Your task to perform on an android device: turn on notifications settings in the gmail app Image 0: 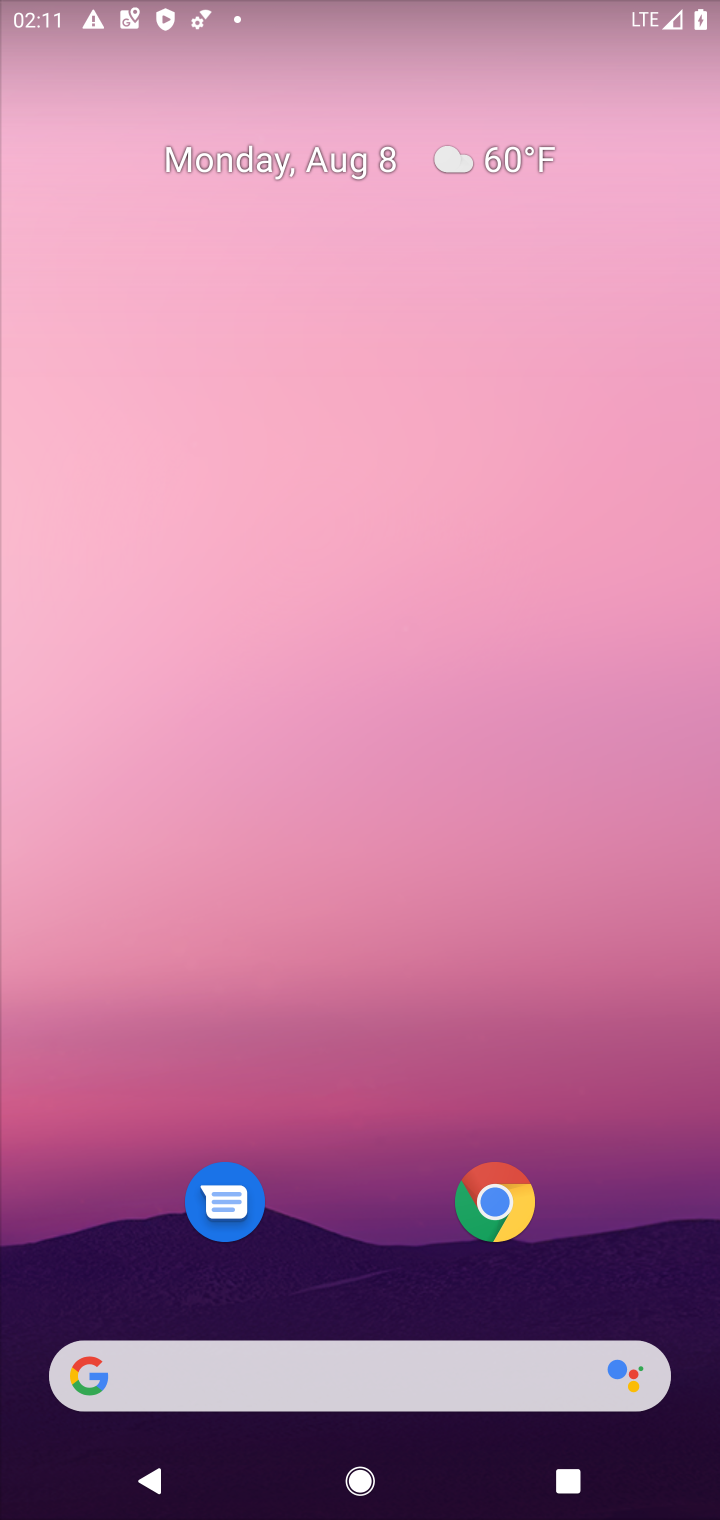
Step 0: drag from (360, 152) to (378, 22)
Your task to perform on an android device: turn on notifications settings in the gmail app Image 1: 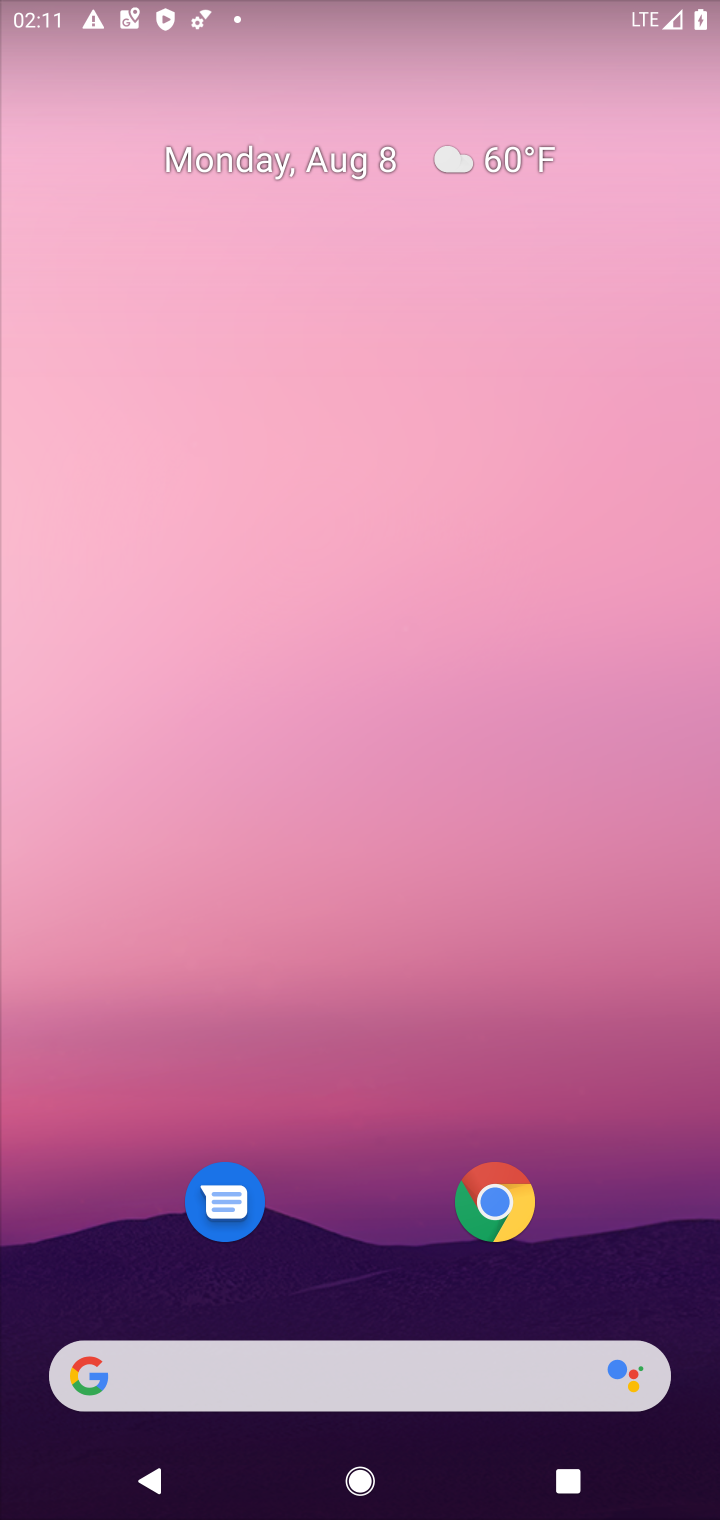
Step 1: click (438, 190)
Your task to perform on an android device: turn on notifications settings in the gmail app Image 2: 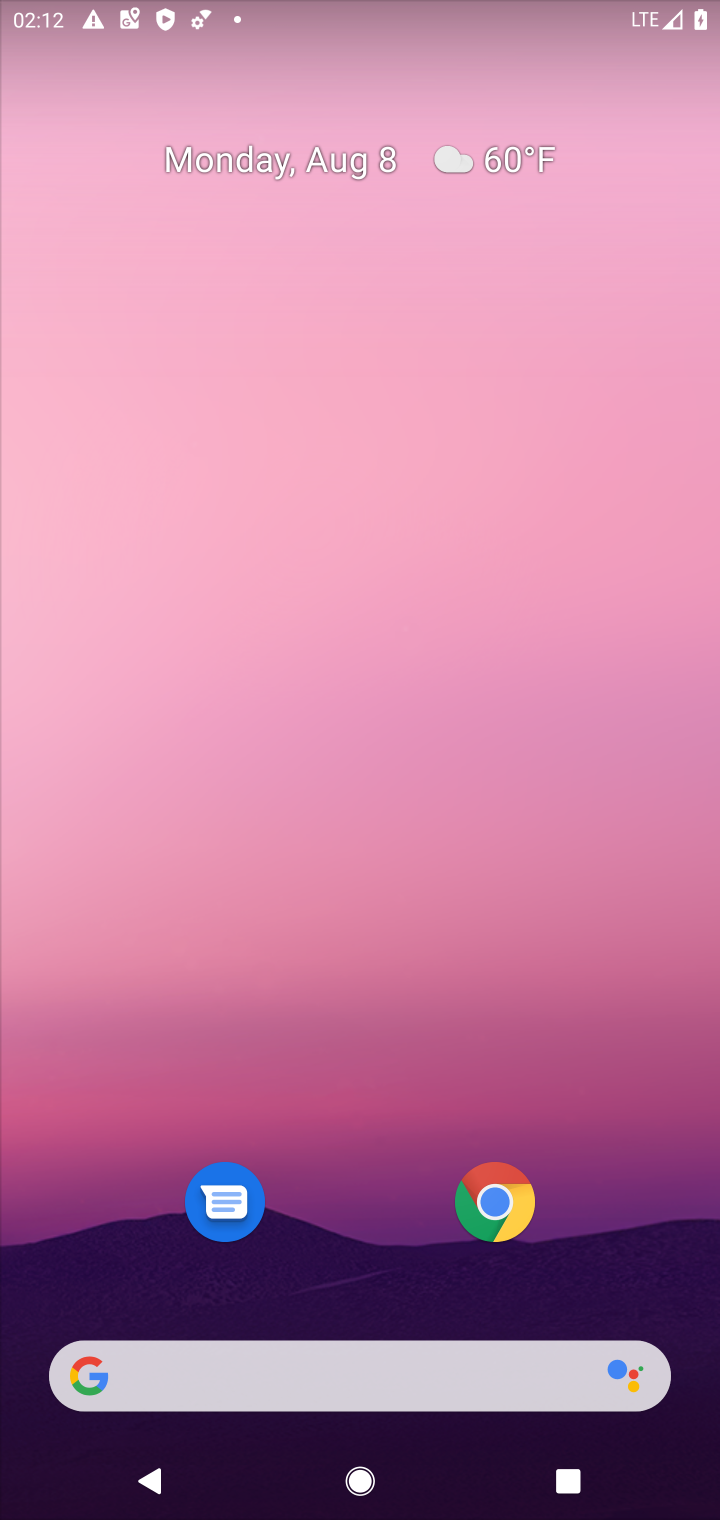
Step 2: drag from (358, 1171) to (332, 504)
Your task to perform on an android device: turn on notifications settings in the gmail app Image 3: 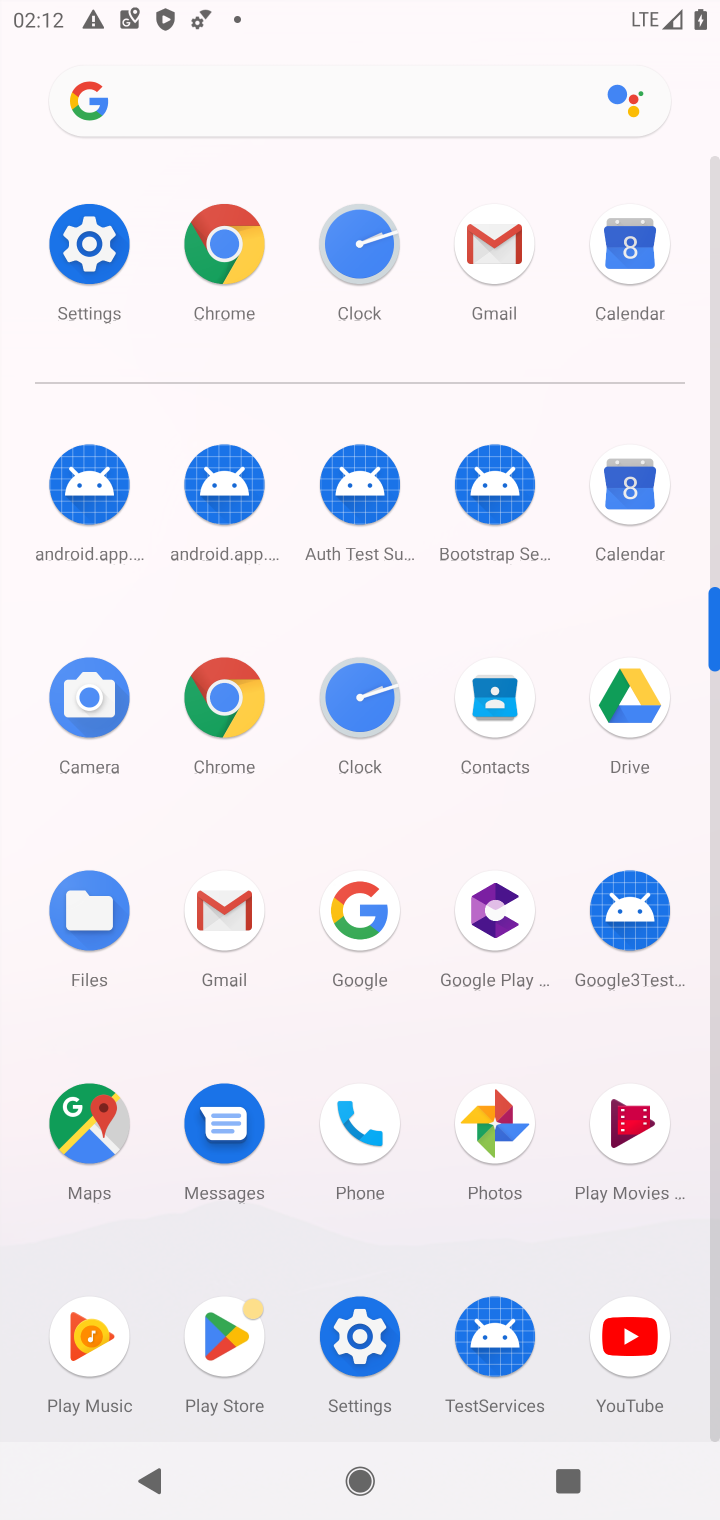
Step 3: click (490, 272)
Your task to perform on an android device: turn on notifications settings in the gmail app Image 4: 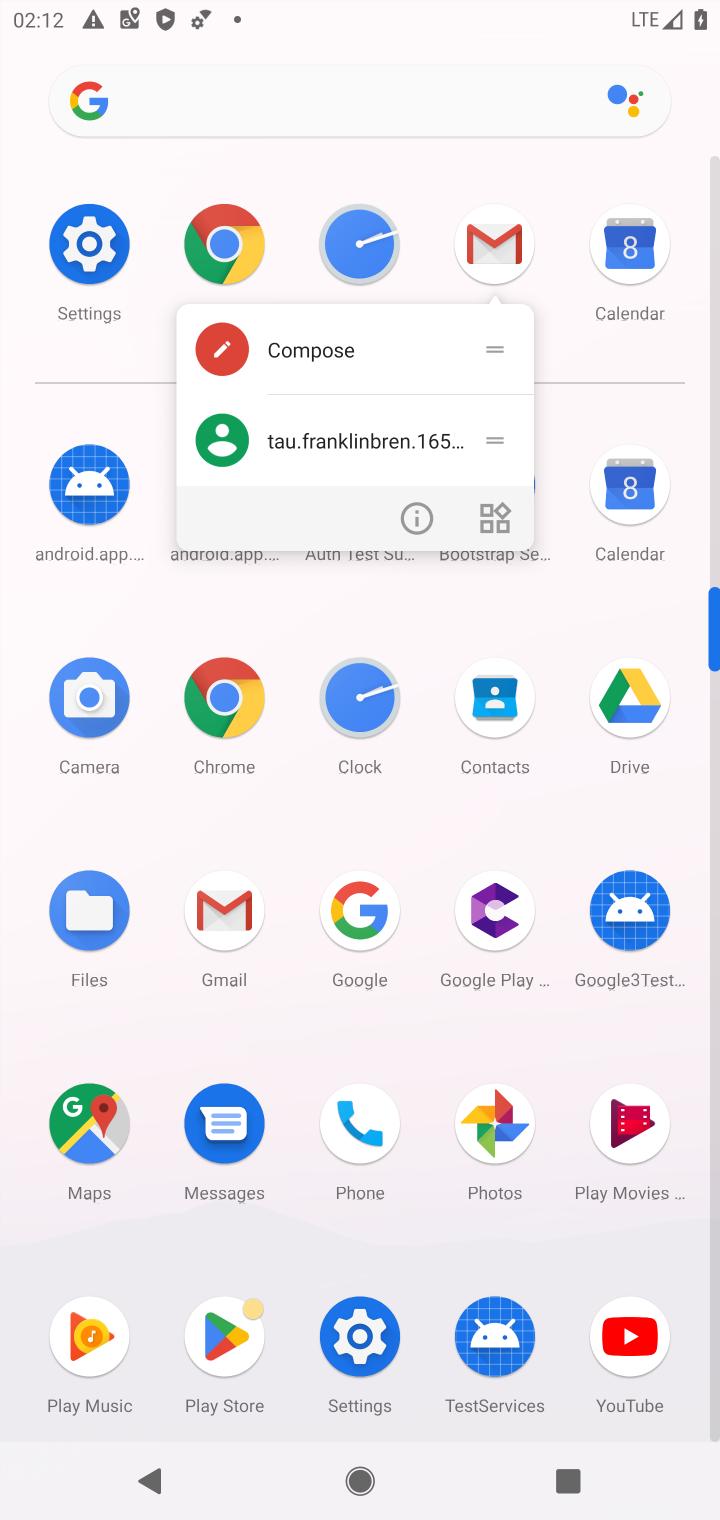
Step 4: click (487, 253)
Your task to perform on an android device: turn on notifications settings in the gmail app Image 5: 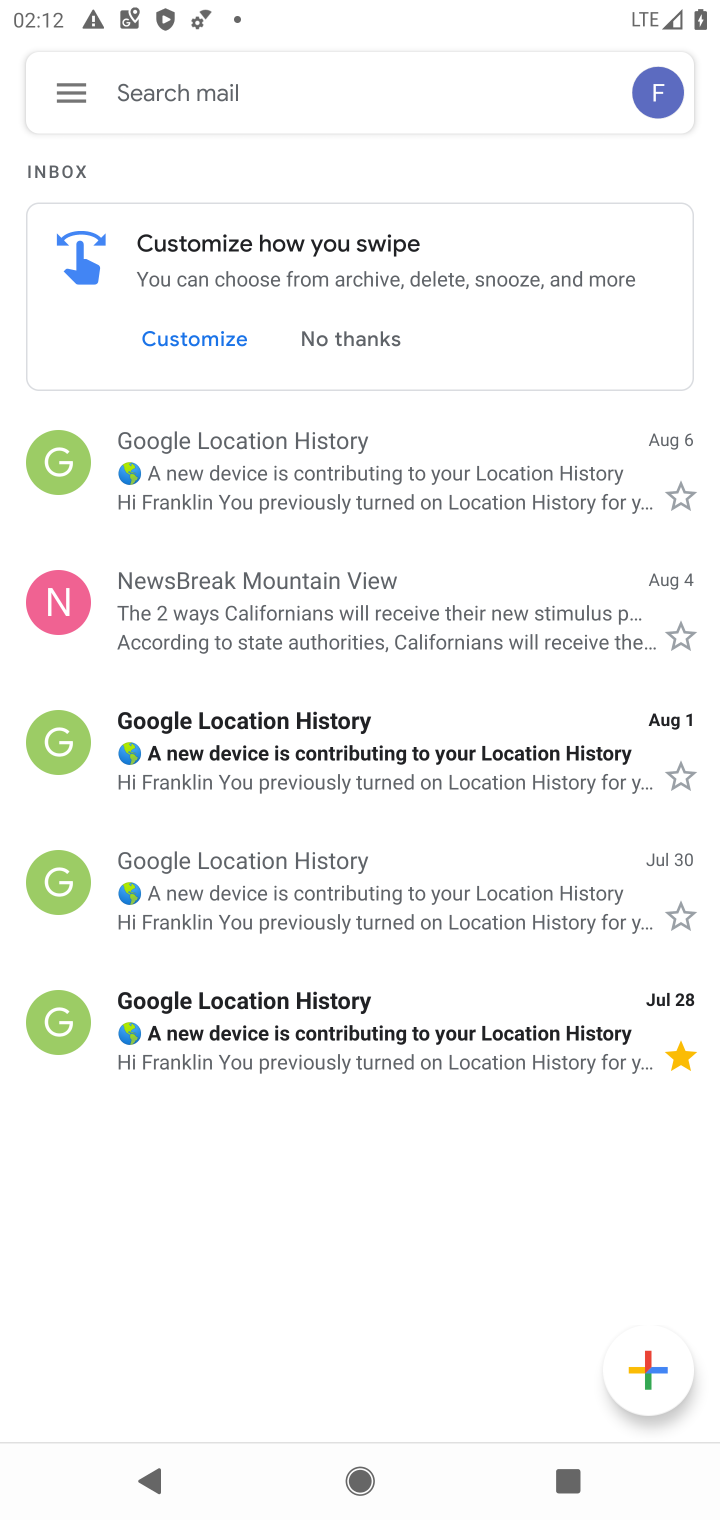
Step 5: click (73, 91)
Your task to perform on an android device: turn on notifications settings in the gmail app Image 6: 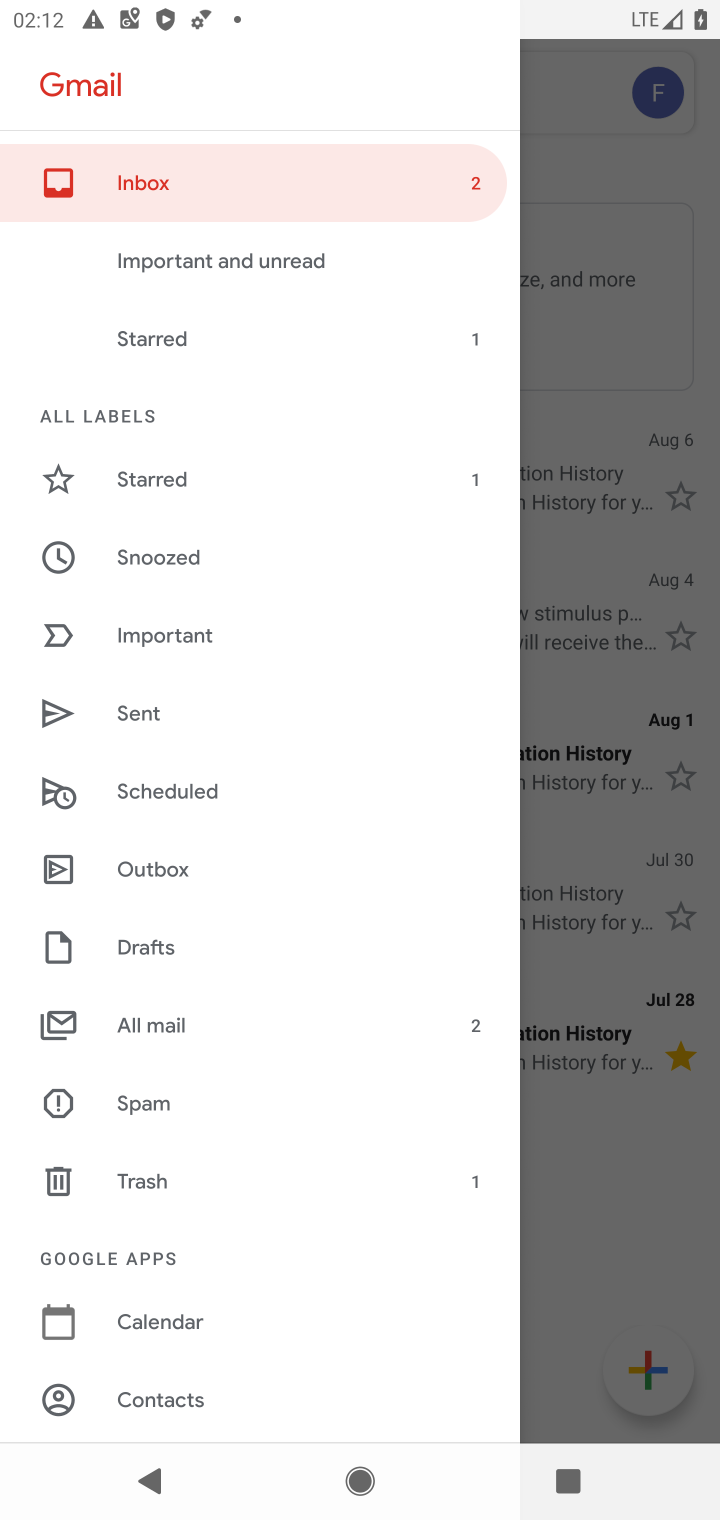
Step 6: drag from (224, 1314) to (258, 748)
Your task to perform on an android device: turn on notifications settings in the gmail app Image 7: 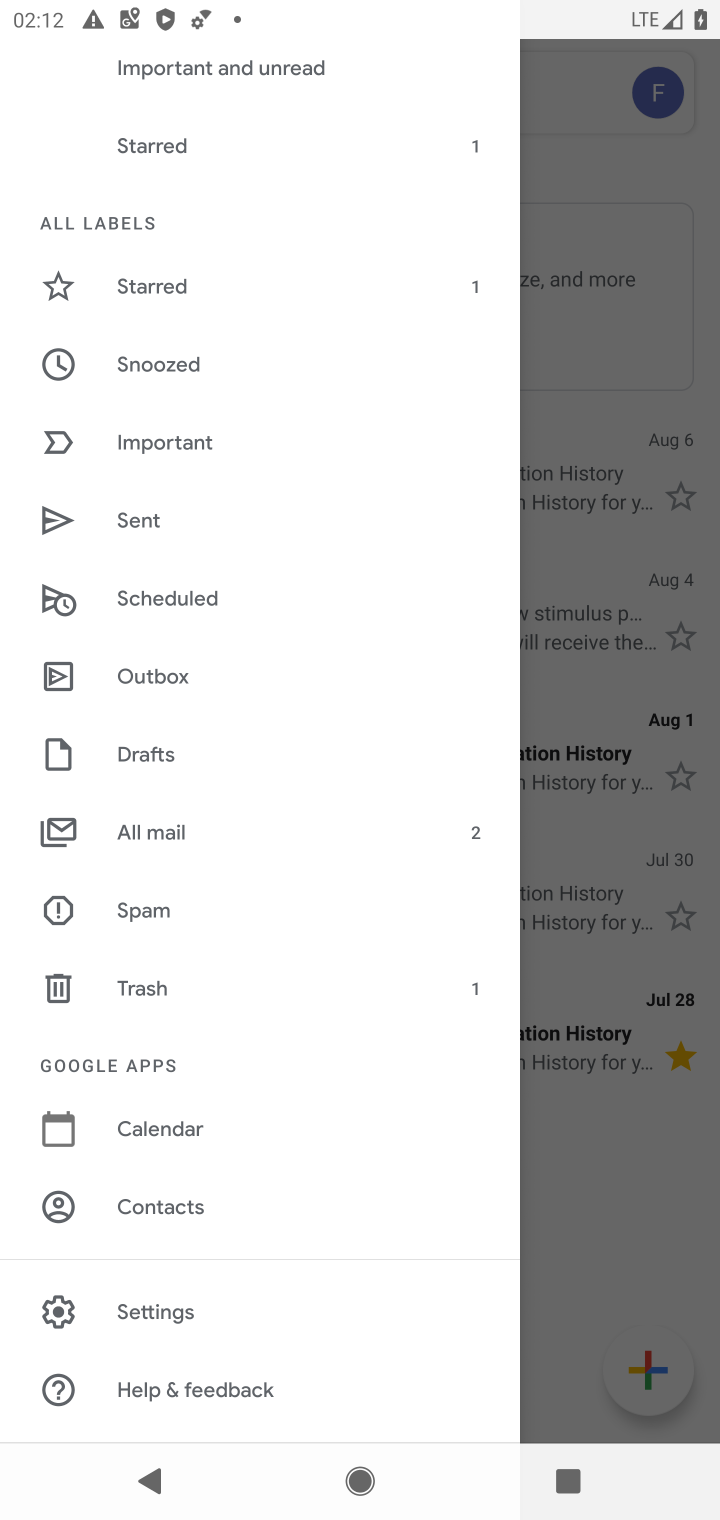
Step 7: click (128, 1305)
Your task to perform on an android device: turn on notifications settings in the gmail app Image 8: 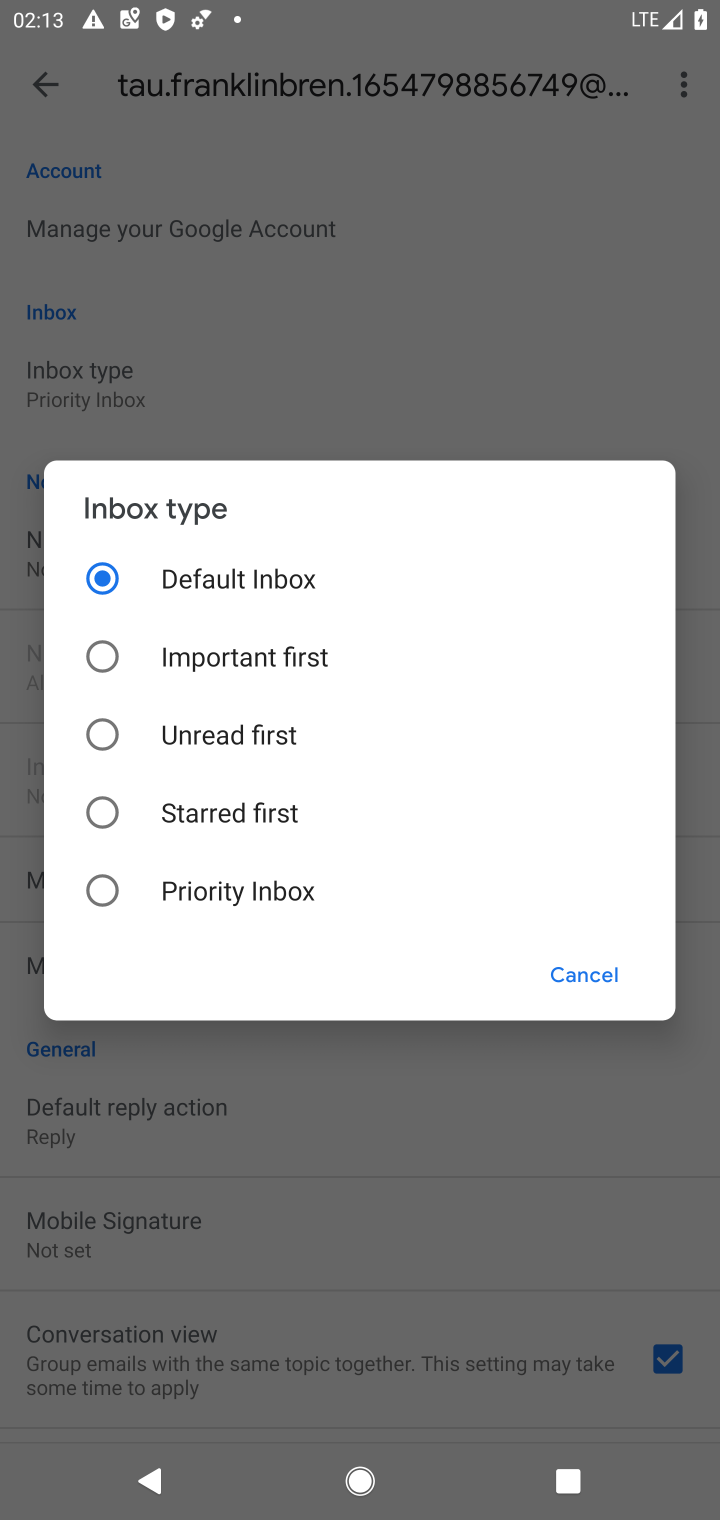
Step 8: press back button
Your task to perform on an android device: turn on notifications settings in the gmail app Image 9: 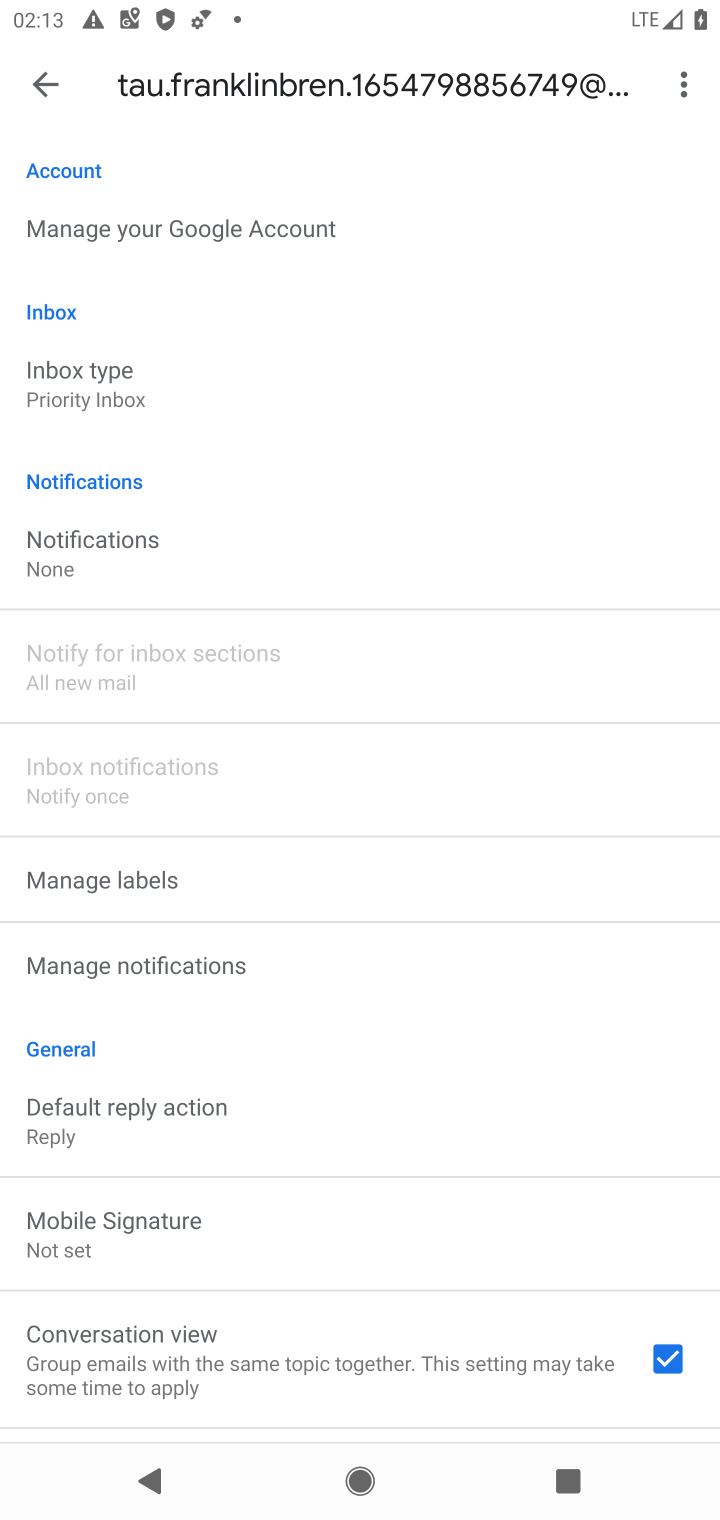
Step 9: click (71, 578)
Your task to perform on an android device: turn on notifications settings in the gmail app Image 10: 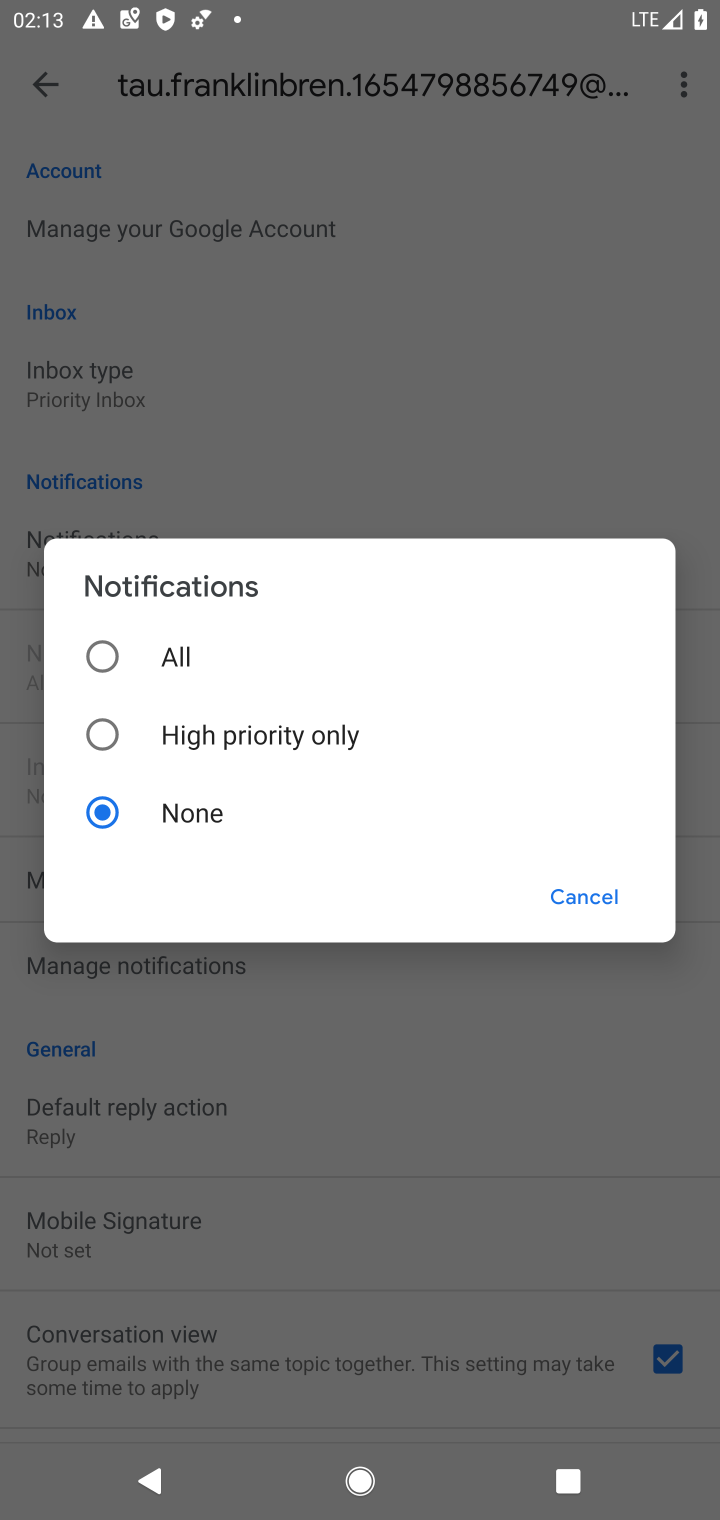
Step 10: click (110, 652)
Your task to perform on an android device: turn on notifications settings in the gmail app Image 11: 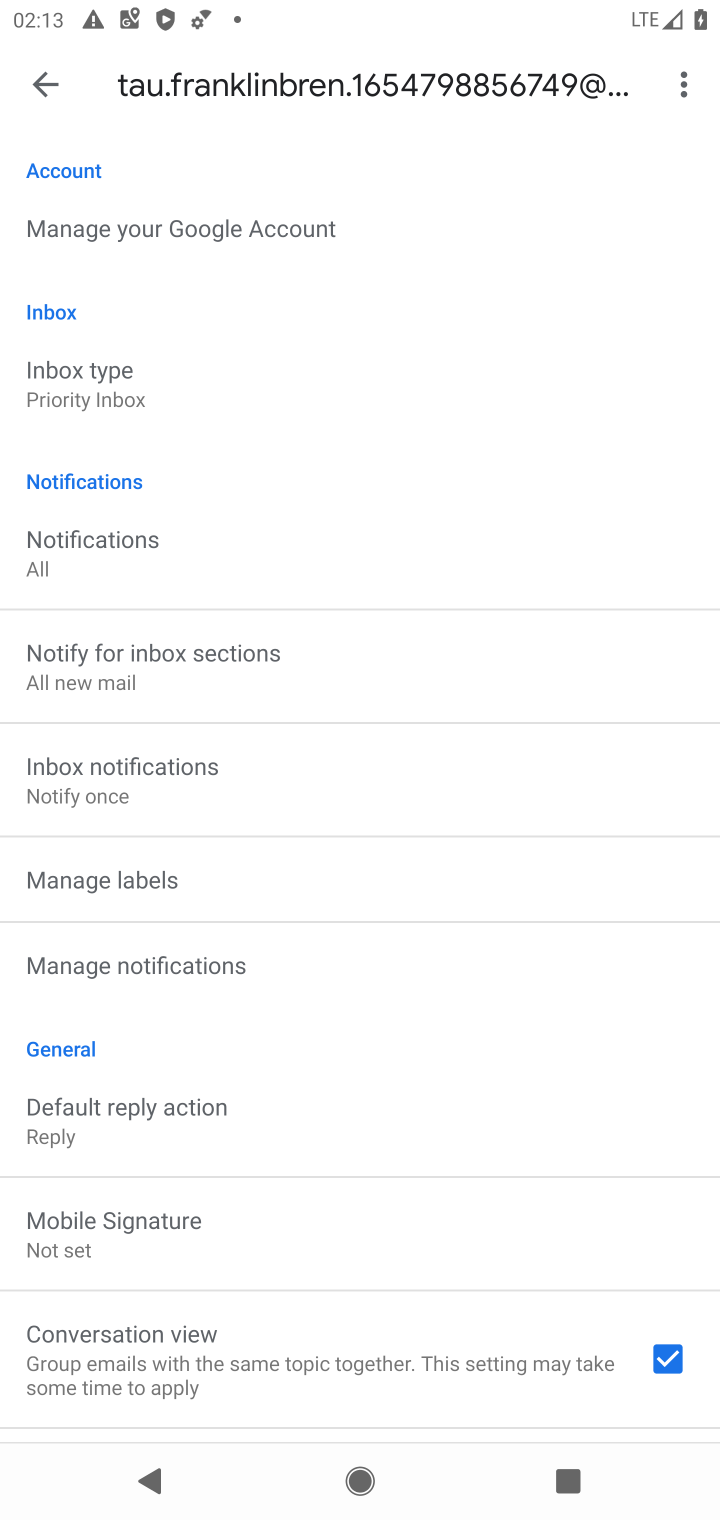
Step 11: task complete